Your task to perform on an android device: open sync settings in chrome Image 0: 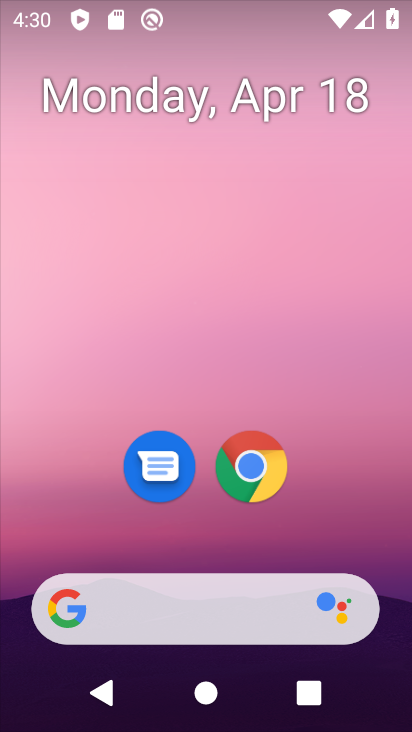
Step 0: drag from (328, 519) to (298, 43)
Your task to perform on an android device: open sync settings in chrome Image 1: 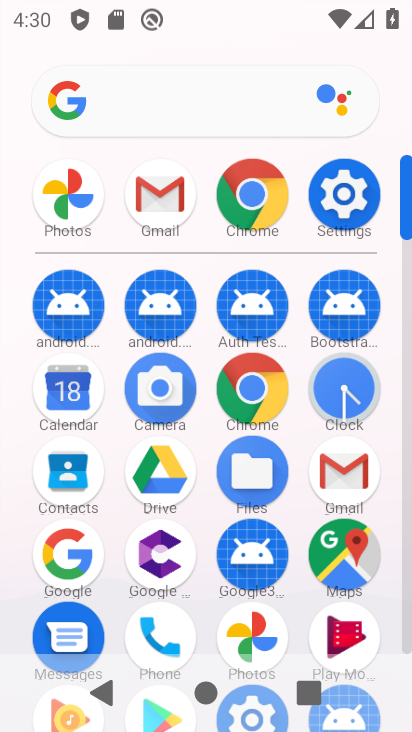
Step 1: drag from (7, 412) to (15, 206)
Your task to perform on an android device: open sync settings in chrome Image 2: 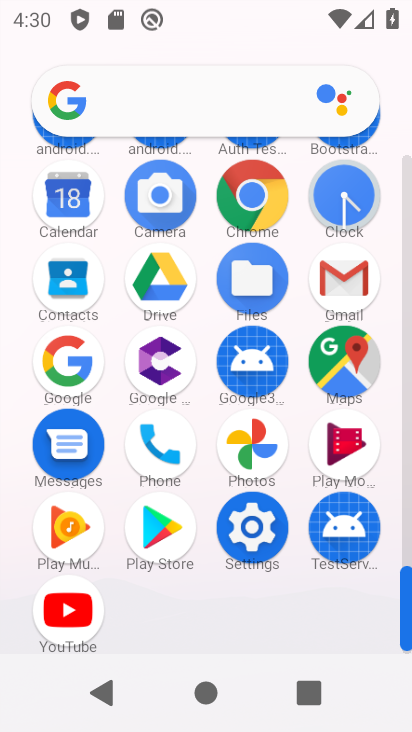
Step 2: click (247, 191)
Your task to perform on an android device: open sync settings in chrome Image 3: 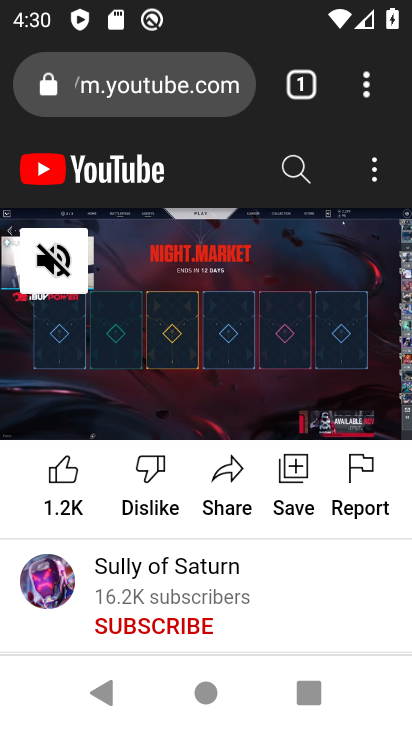
Step 3: drag from (369, 83) to (141, 506)
Your task to perform on an android device: open sync settings in chrome Image 4: 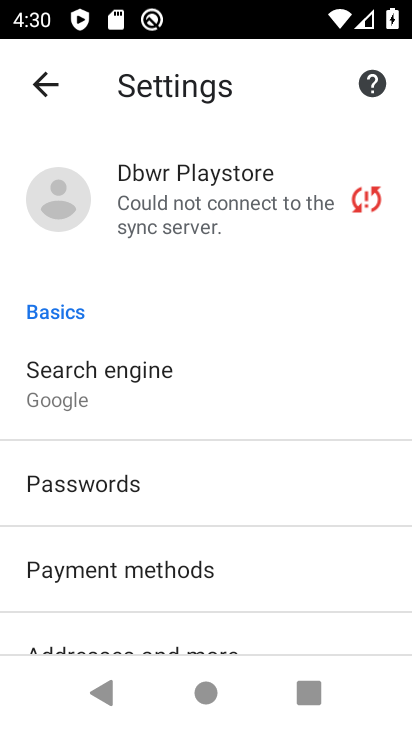
Step 4: drag from (228, 532) to (223, 319)
Your task to perform on an android device: open sync settings in chrome Image 5: 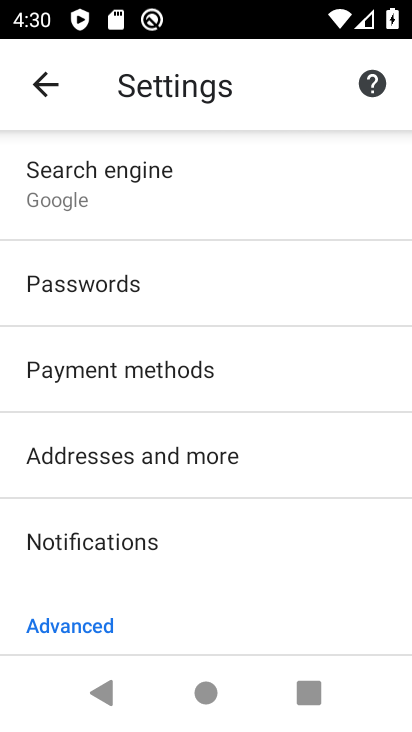
Step 5: drag from (228, 257) to (218, 471)
Your task to perform on an android device: open sync settings in chrome Image 6: 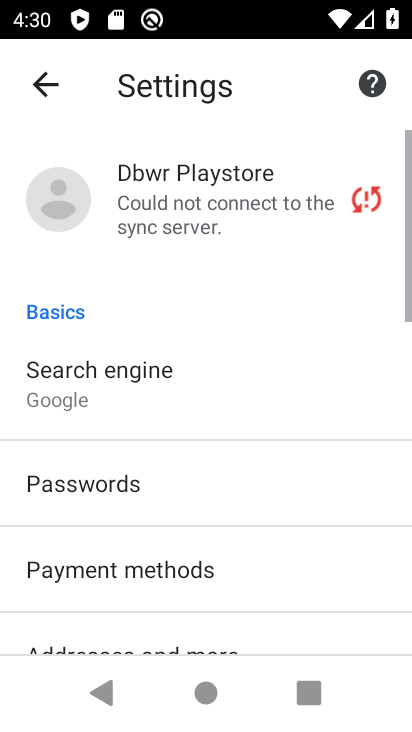
Step 6: click (187, 193)
Your task to perform on an android device: open sync settings in chrome Image 7: 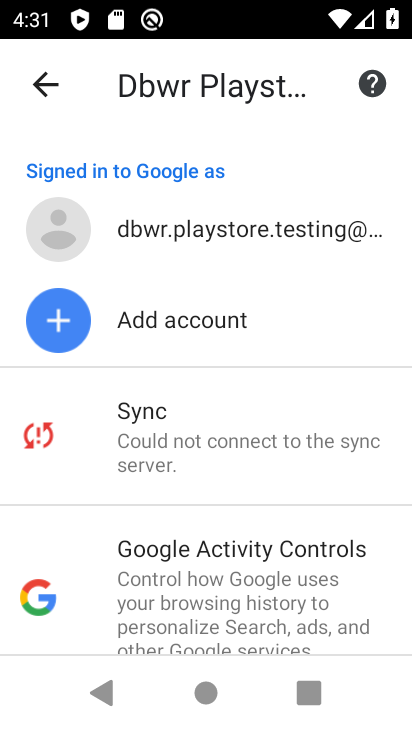
Step 7: click (170, 414)
Your task to perform on an android device: open sync settings in chrome Image 8: 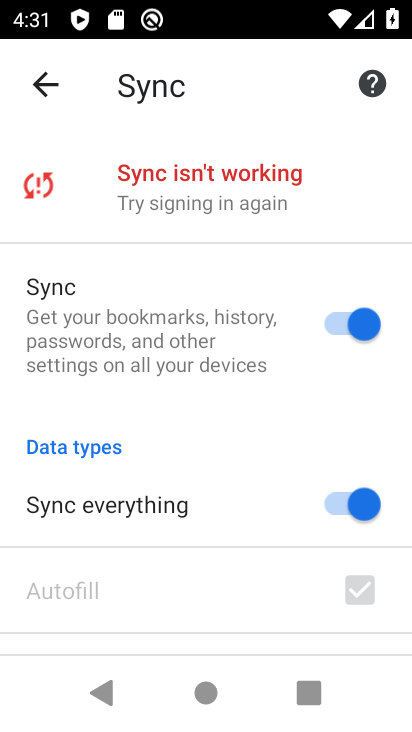
Step 8: task complete